Your task to perform on an android device: See recent photos Image 0: 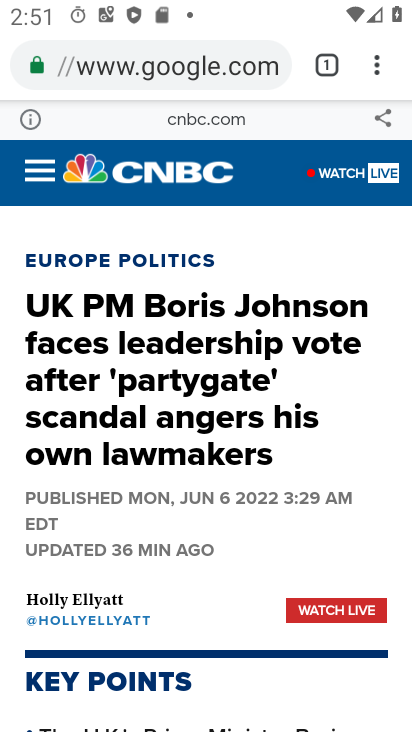
Step 0: press home button
Your task to perform on an android device: See recent photos Image 1: 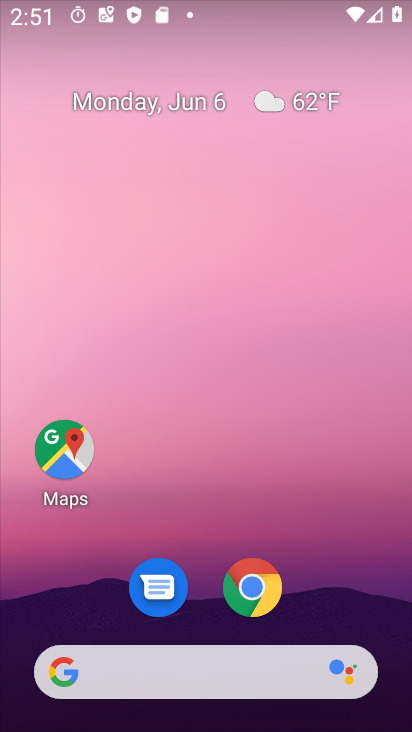
Step 1: drag from (327, 555) to (262, 60)
Your task to perform on an android device: See recent photos Image 2: 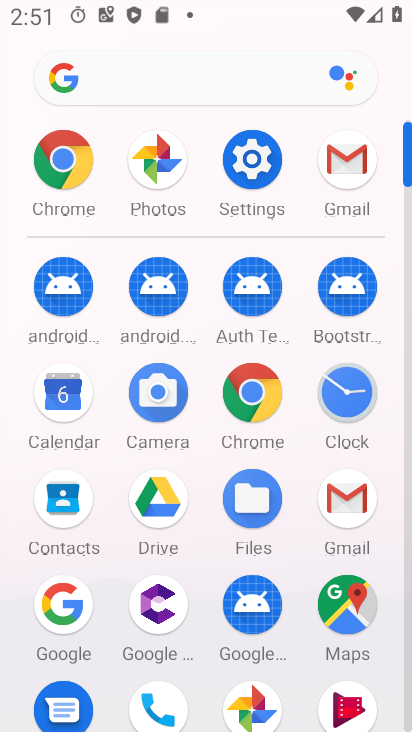
Step 2: click (156, 149)
Your task to perform on an android device: See recent photos Image 3: 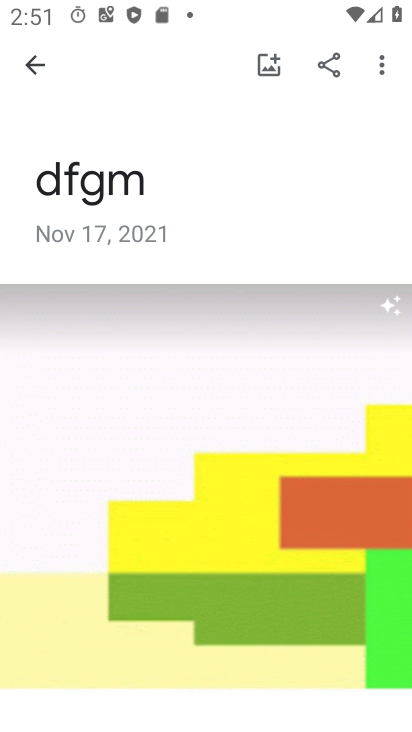
Step 3: click (44, 70)
Your task to perform on an android device: See recent photos Image 4: 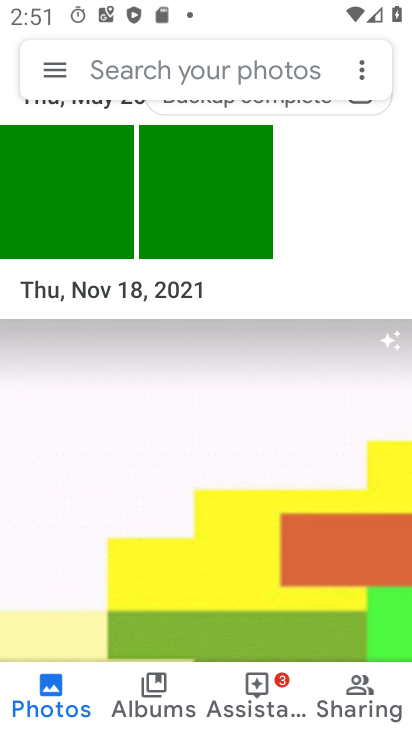
Step 4: click (29, 698)
Your task to perform on an android device: See recent photos Image 5: 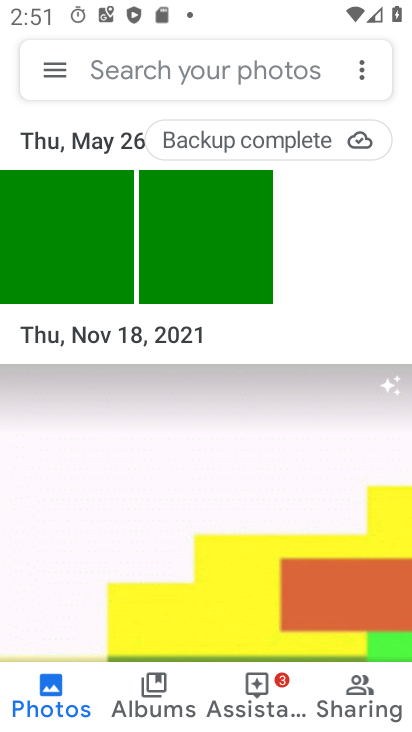
Step 5: task complete